Your task to perform on an android device: open app "Google Duo" Image 0: 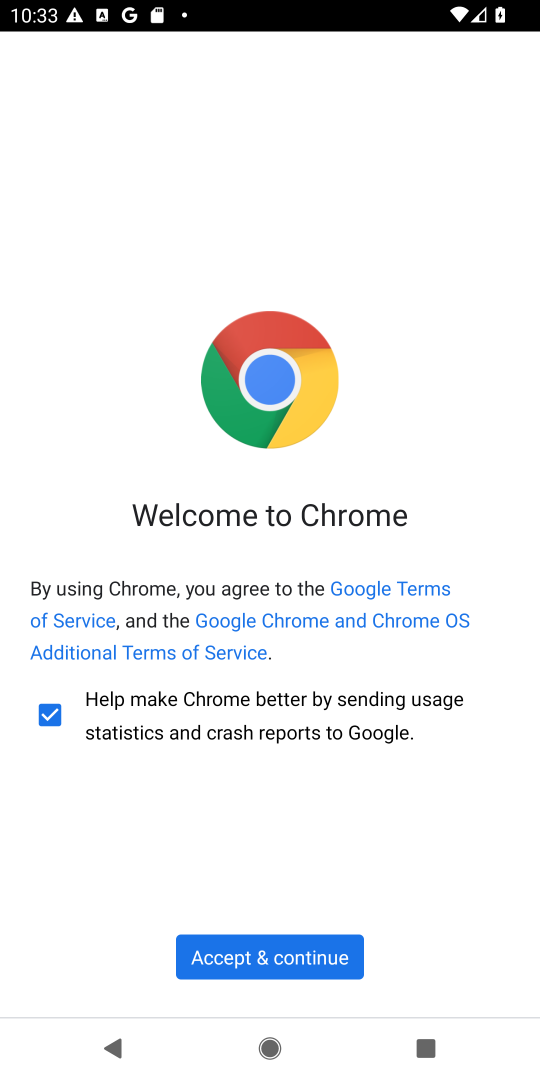
Step 0: press home button
Your task to perform on an android device: open app "Google Duo" Image 1: 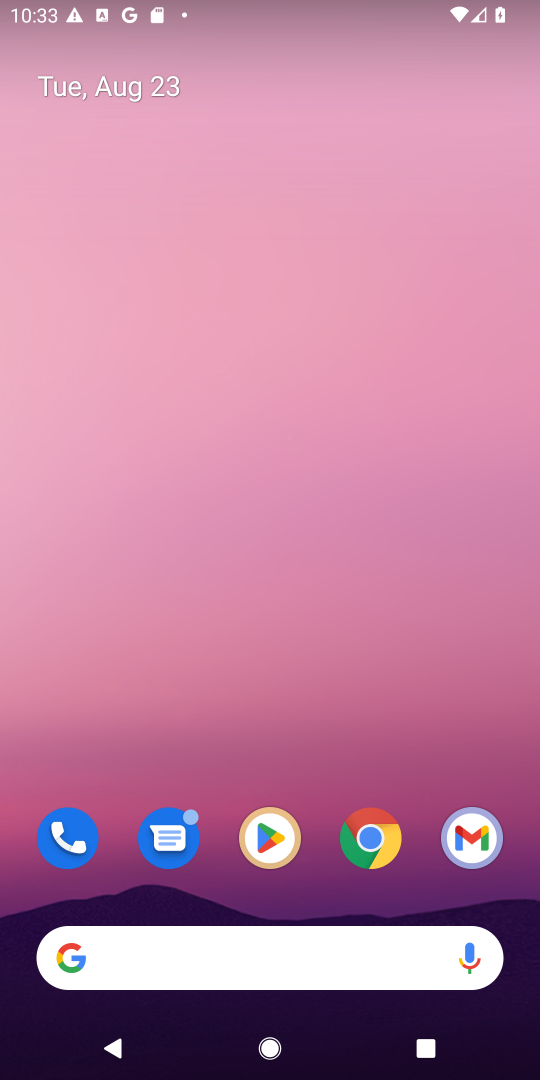
Step 1: click (276, 830)
Your task to perform on an android device: open app "Google Duo" Image 2: 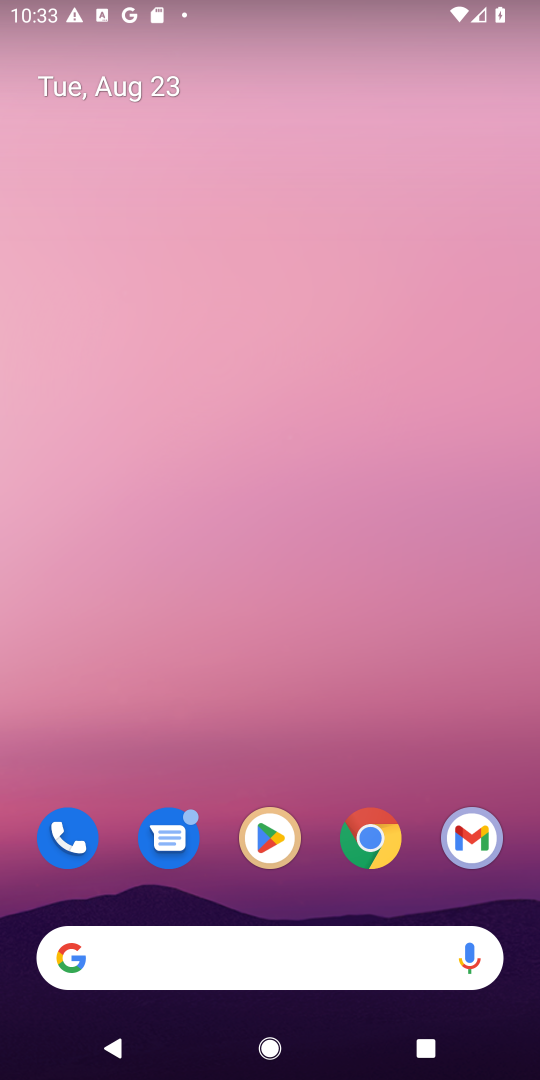
Step 2: click (268, 838)
Your task to perform on an android device: open app "Google Duo" Image 3: 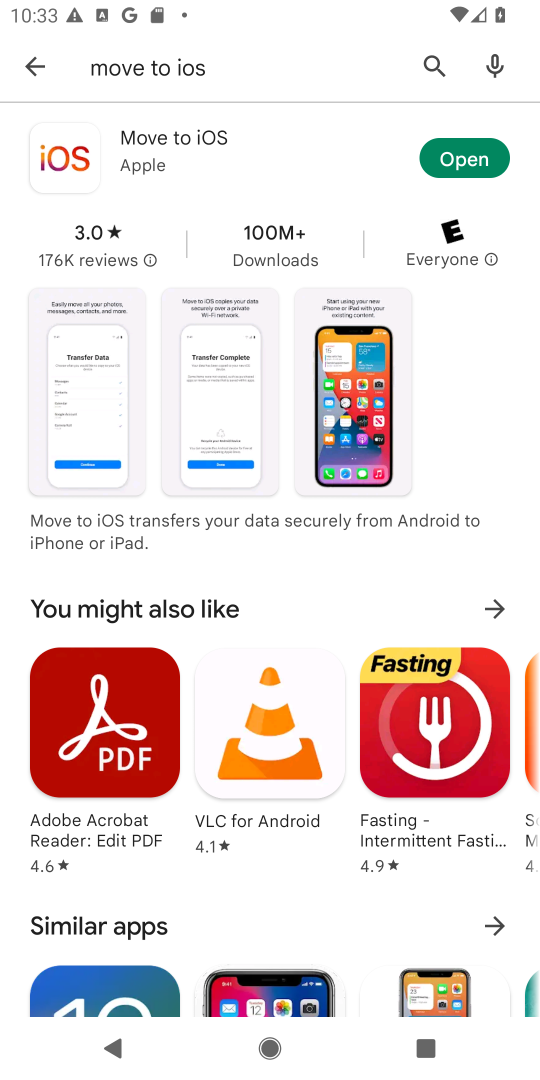
Step 3: click (472, 164)
Your task to perform on an android device: open app "Google Duo" Image 4: 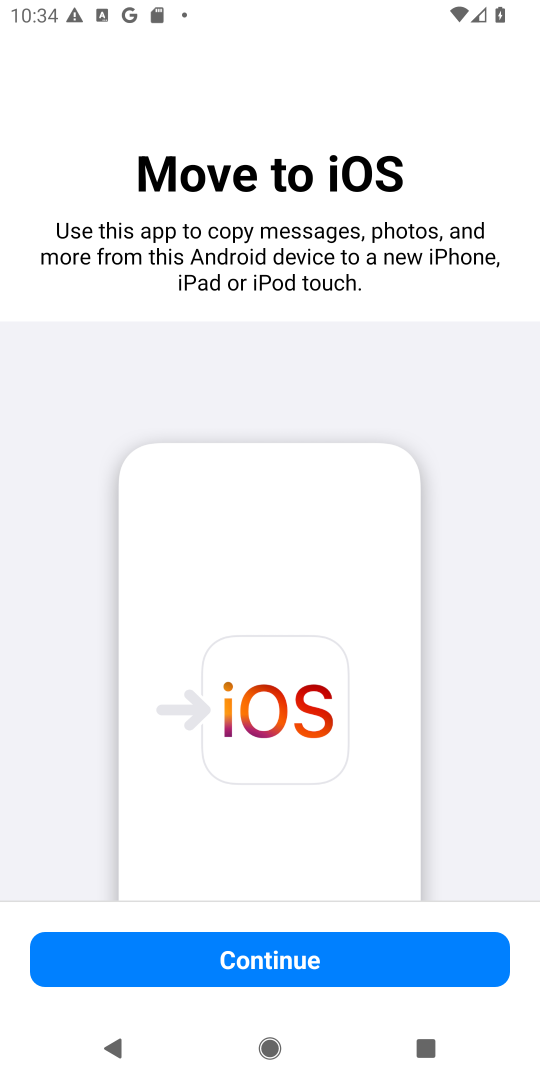
Step 4: press back button
Your task to perform on an android device: open app "Google Duo" Image 5: 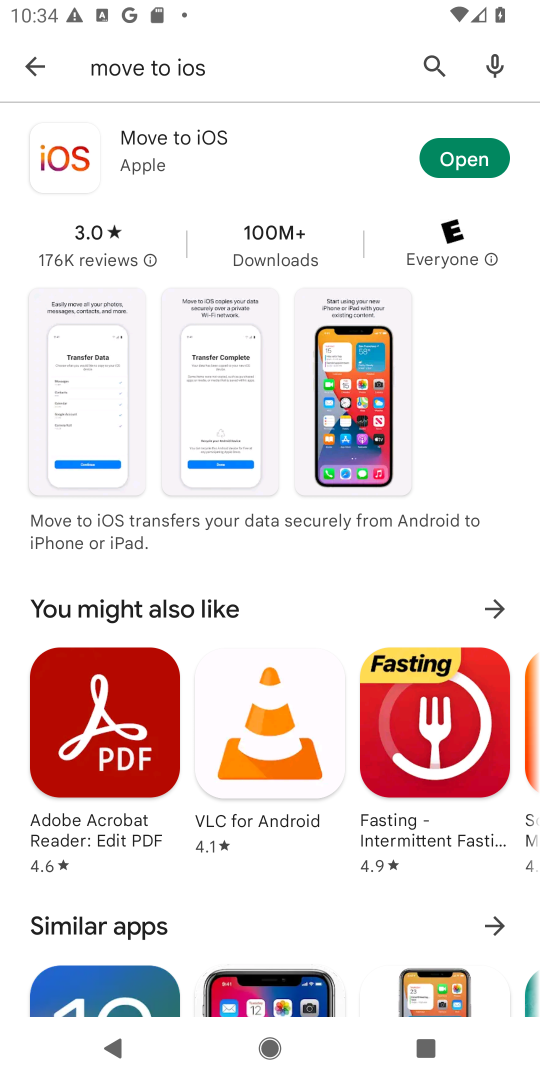
Step 5: click (427, 62)
Your task to perform on an android device: open app "Google Duo" Image 6: 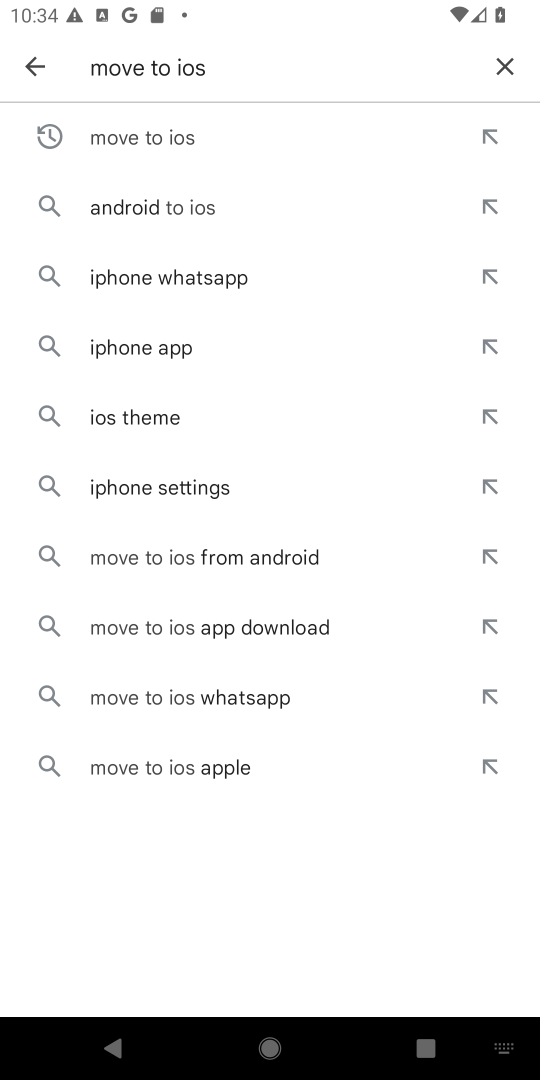
Step 6: click (509, 69)
Your task to perform on an android device: open app "Google Duo" Image 7: 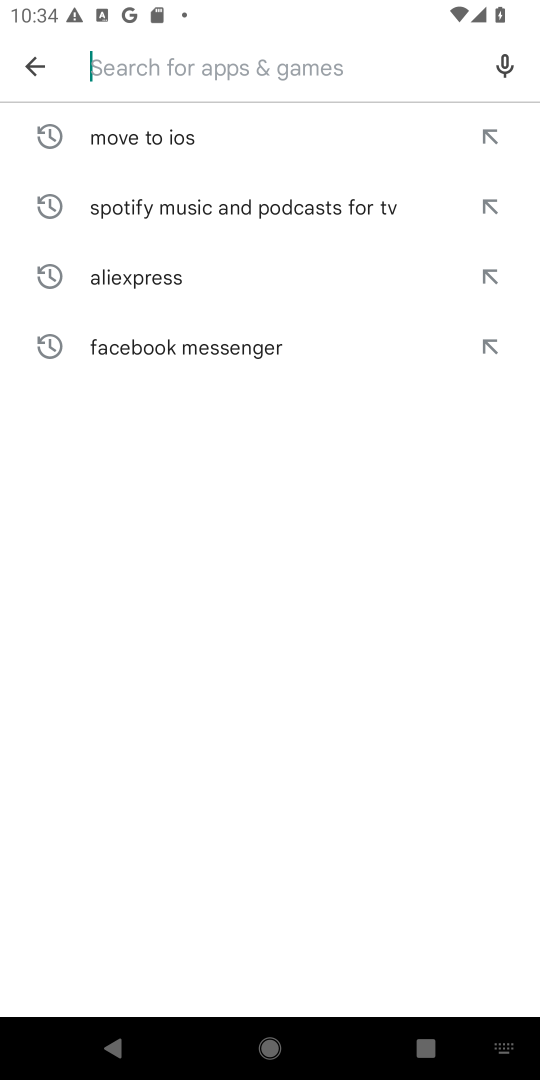
Step 7: type "Google Duo"
Your task to perform on an android device: open app "Google Duo" Image 8: 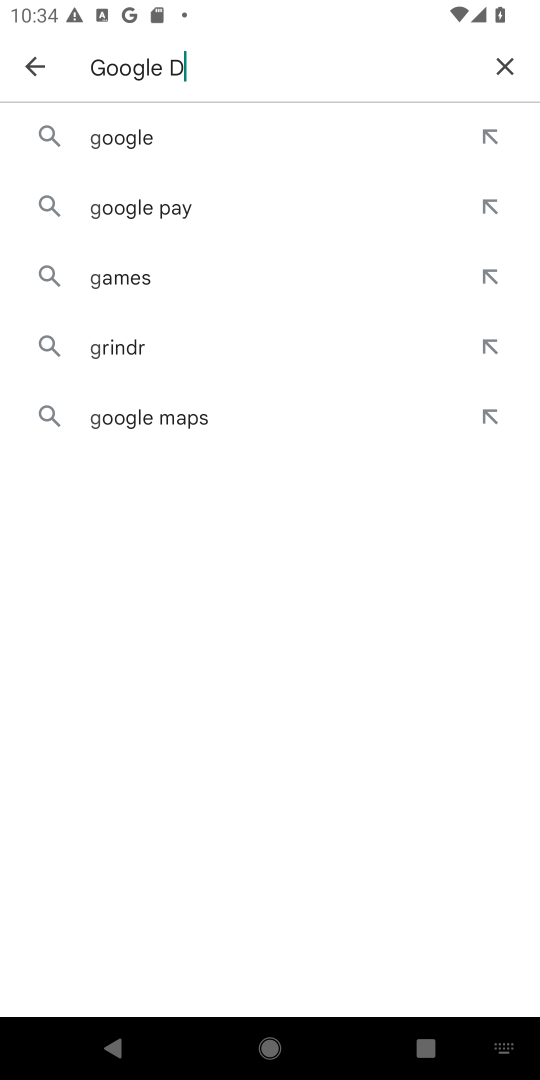
Step 8: type ""
Your task to perform on an android device: open app "Google Duo" Image 9: 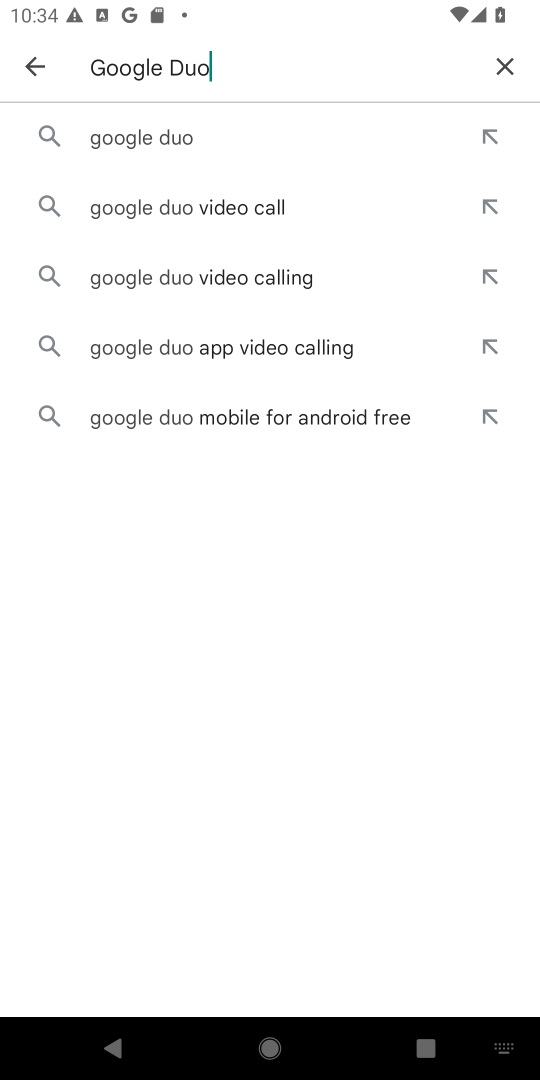
Step 9: click (104, 135)
Your task to perform on an android device: open app "Google Duo" Image 10: 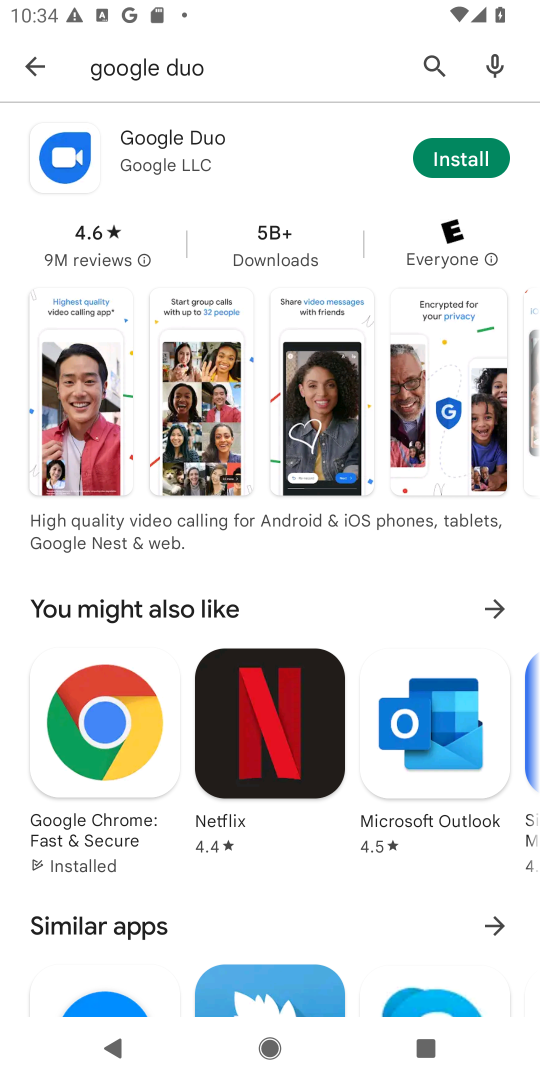
Step 10: task complete